Your task to perform on an android device: turn vacation reply on in the gmail app Image 0: 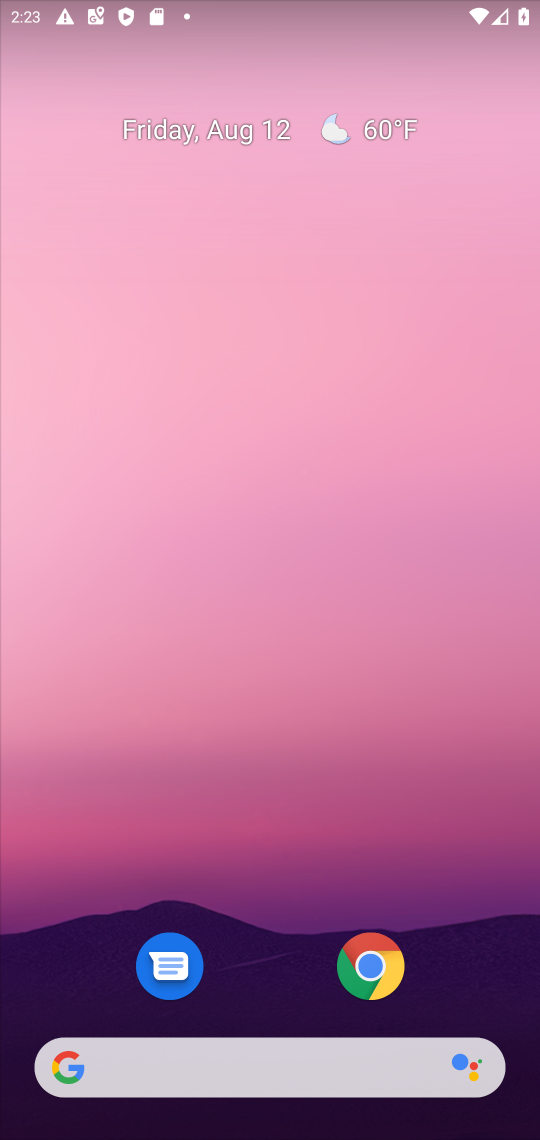
Step 0: press home button
Your task to perform on an android device: turn vacation reply on in the gmail app Image 1: 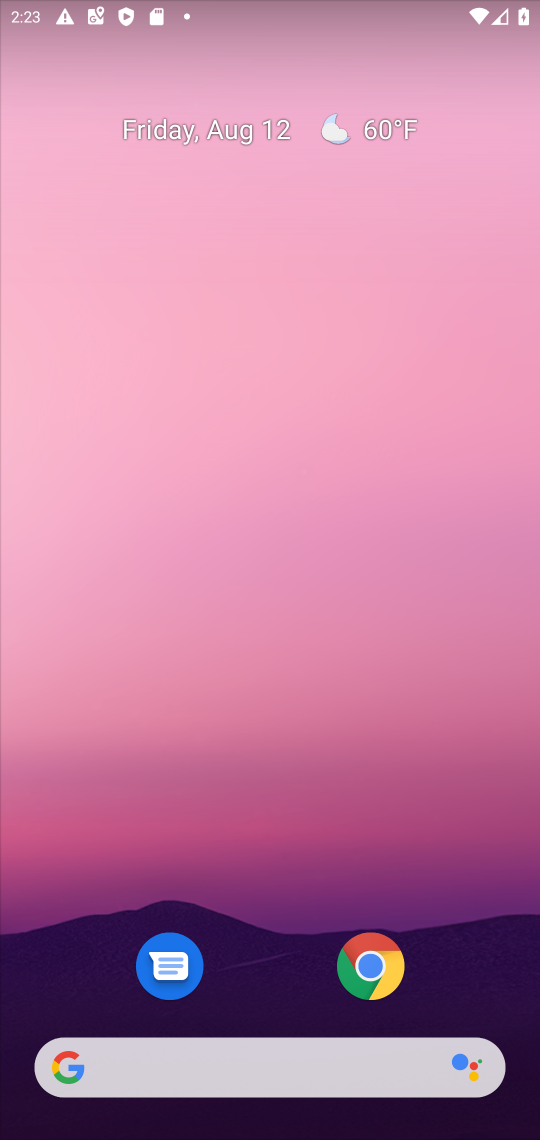
Step 1: drag from (277, 886) to (270, 0)
Your task to perform on an android device: turn vacation reply on in the gmail app Image 2: 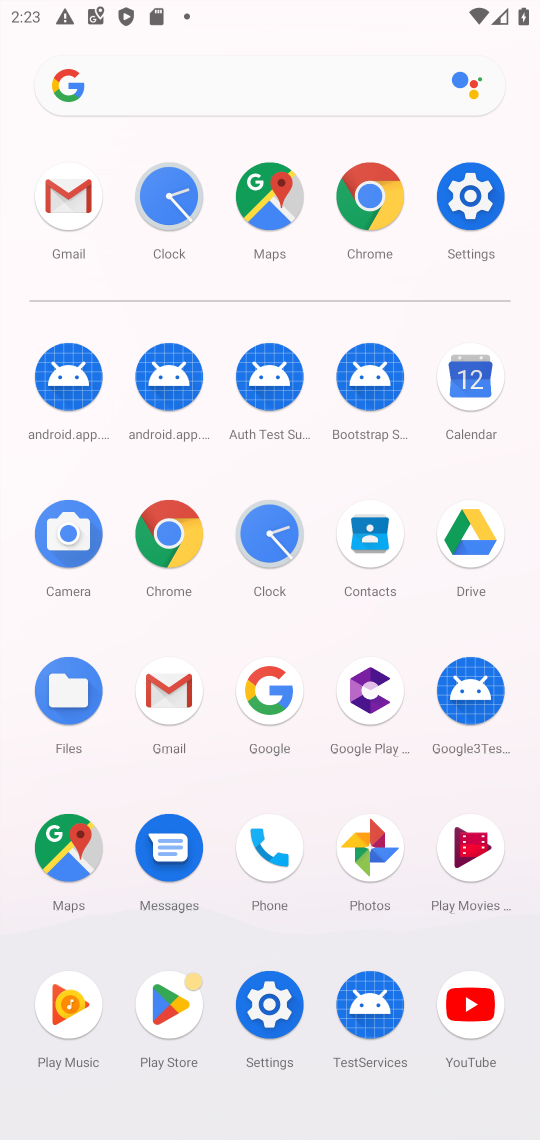
Step 2: click (172, 689)
Your task to perform on an android device: turn vacation reply on in the gmail app Image 3: 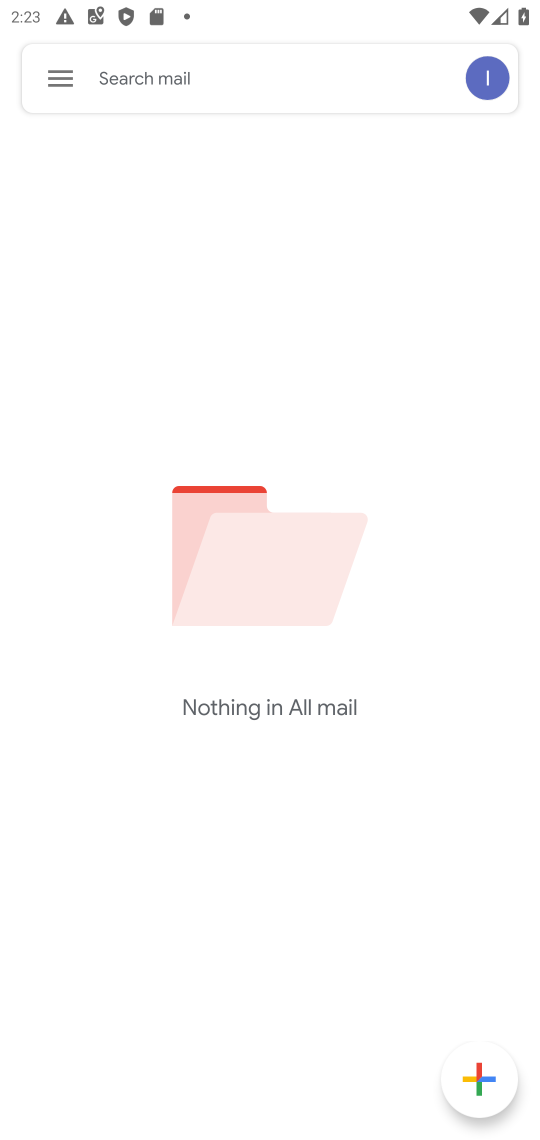
Step 3: click (82, 51)
Your task to perform on an android device: turn vacation reply on in the gmail app Image 4: 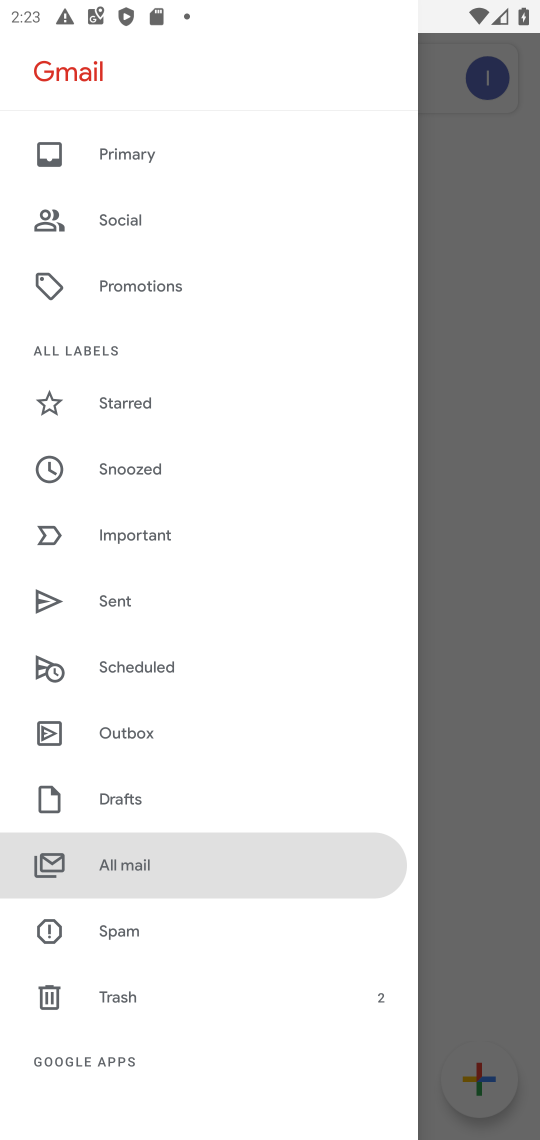
Step 4: drag from (169, 1013) to (190, 367)
Your task to perform on an android device: turn vacation reply on in the gmail app Image 5: 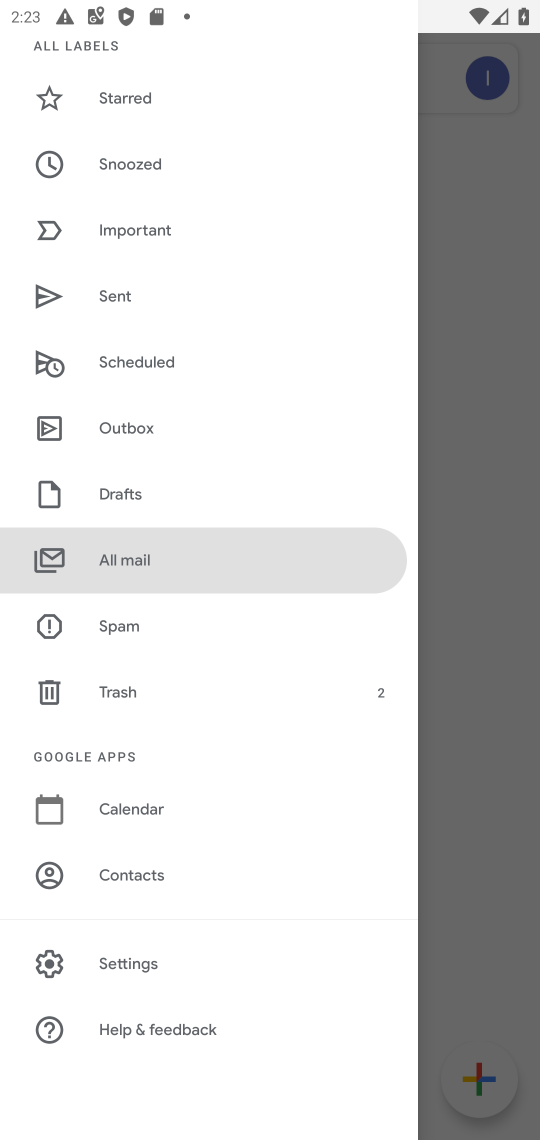
Step 5: click (148, 956)
Your task to perform on an android device: turn vacation reply on in the gmail app Image 6: 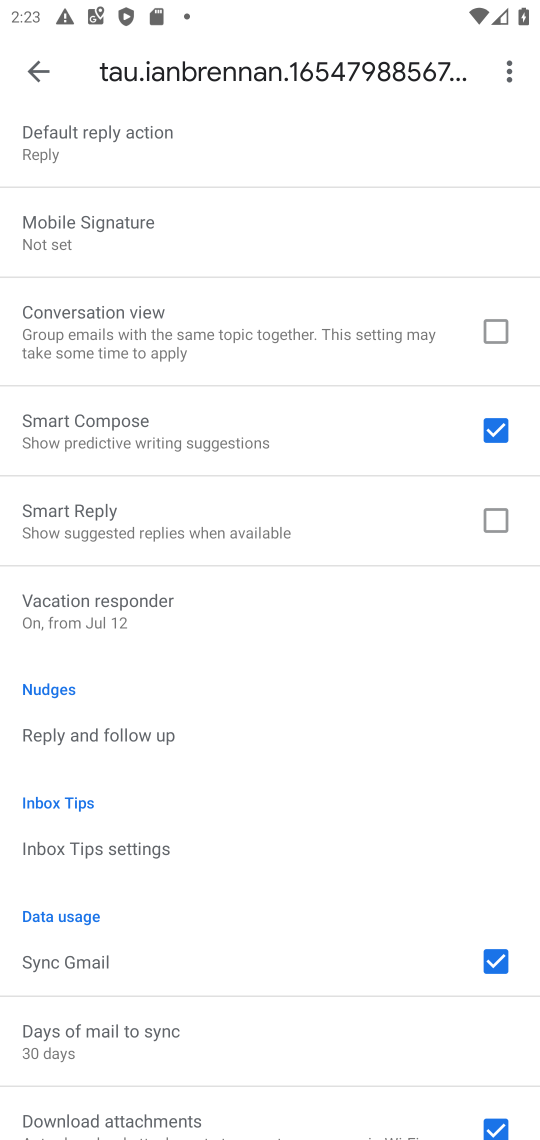
Step 6: drag from (277, 779) to (290, 177)
Your task to perform on an android device: turn vacation reply on in the gmail app Image 7: 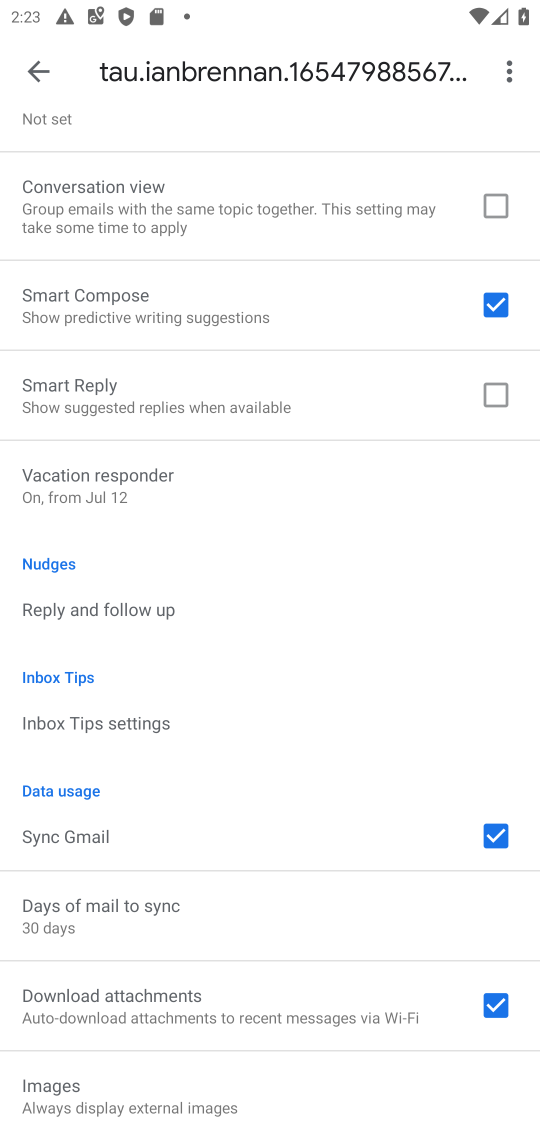
Step 7: drag from (196, 901) to (328, 173)
Your task to perform on an android device: turn vacation reply on in the gmail app Image 8: 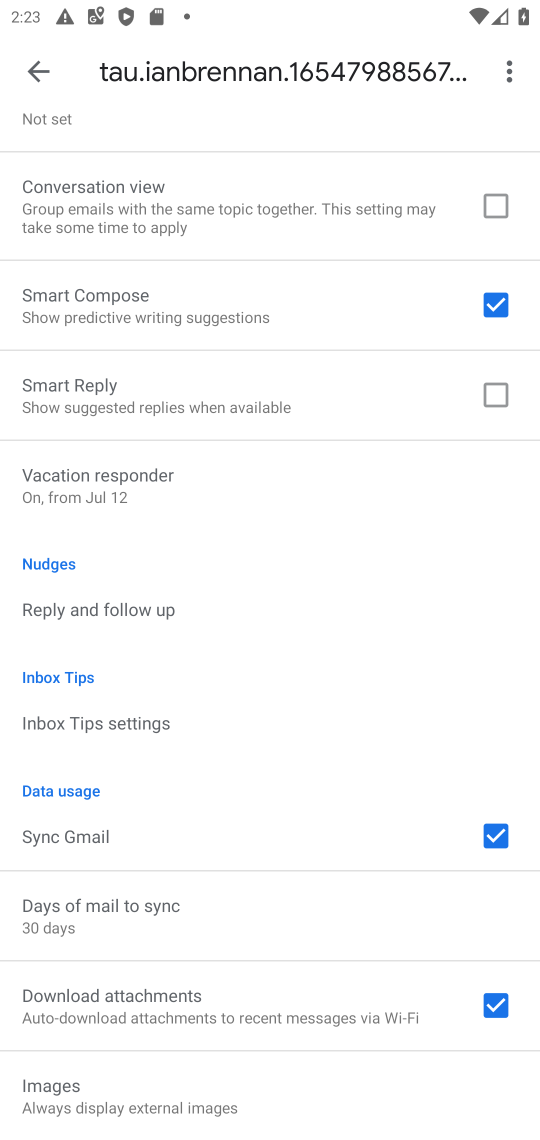
Step 8: click (152, 483)
Your task to perform on an android device: turn vacation reply on in the gmail app Image 9: 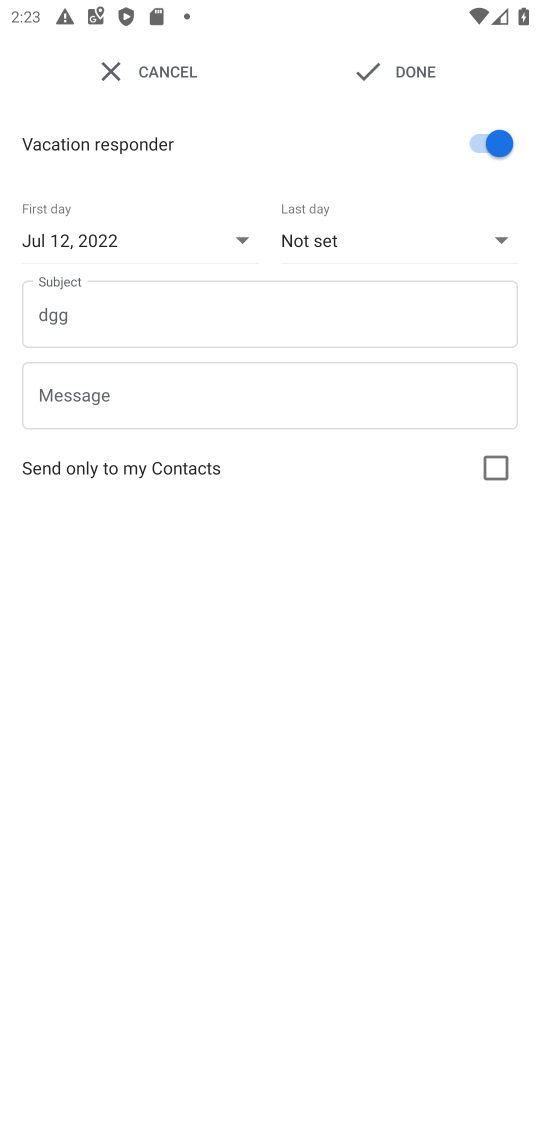
Step 9: task complete